Your task to perform on an android device: Open Yahoo.com Image 0: 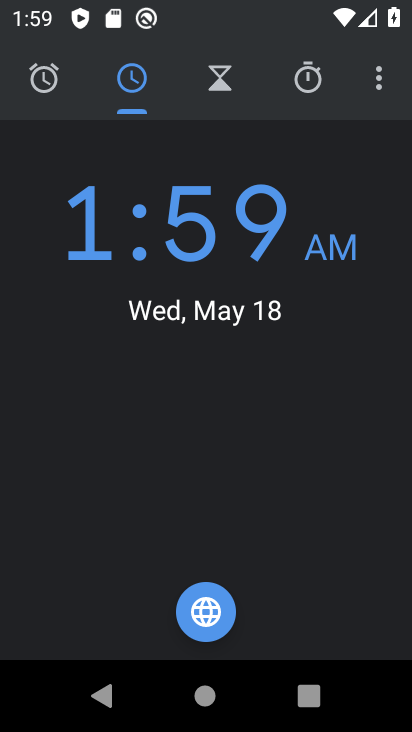
Step 0: press home button
Your task to perform on an android device: Open Yahoo.com Image 1: 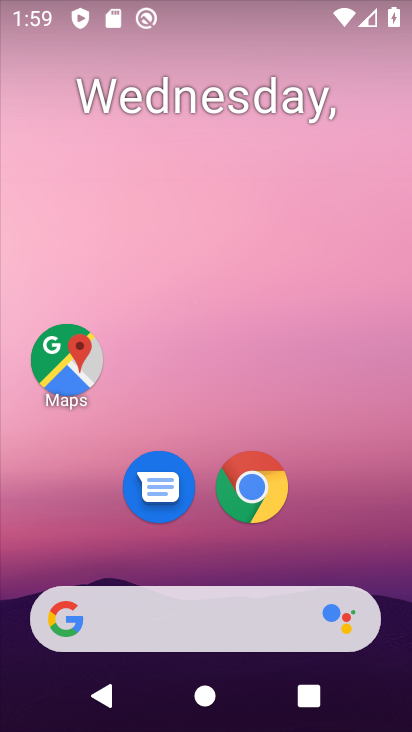
Step 1: click (251, 492)
Your task to perform on an android device: Open Yahoo.com Image 2: 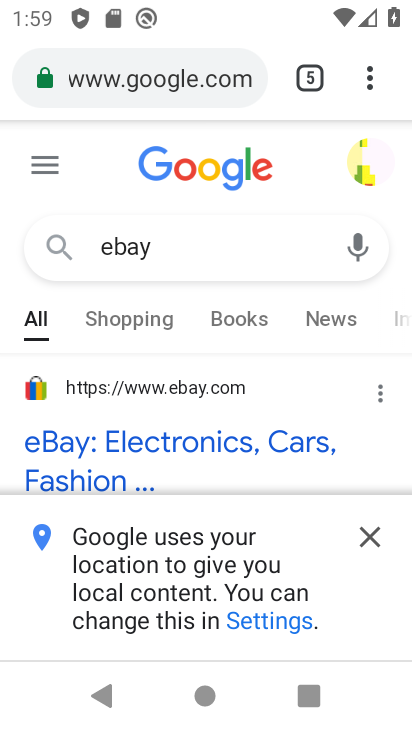
Step 2: click (374, 81)
Your task to perform on an android device: Open Yahoo.com Image 3: 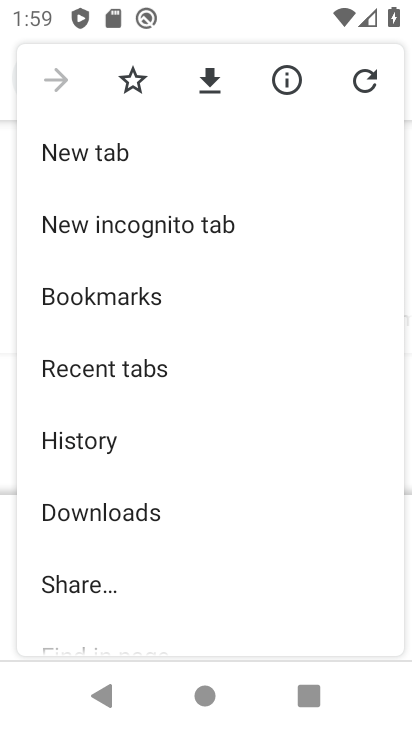
Step 3: click (96, 158)
Your task to perform on an android device: Open Yahoo.com Image 4: 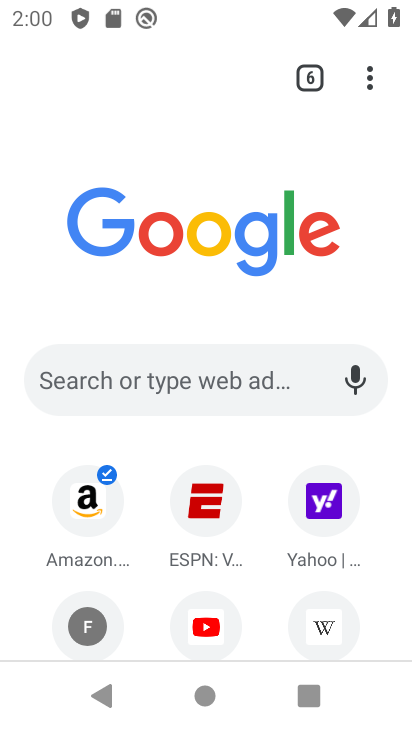
Step 4: drag from (138, 593) to (118, 332)
Your task to perform on an android device: Open Yahoo.com Image 5: 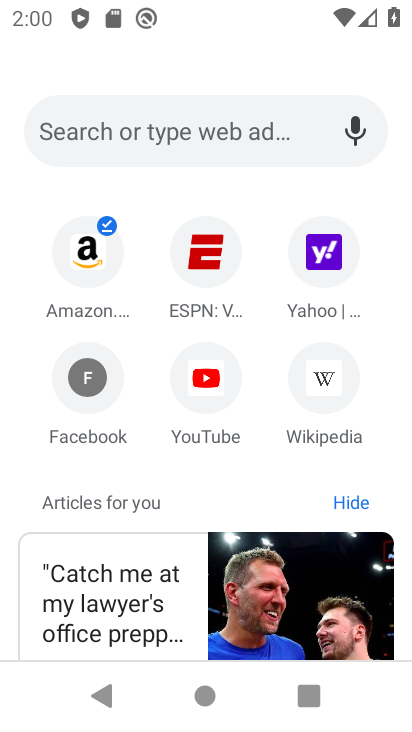
Step 5: click (317, 244)
Your task to perform on an android device: Open Yahoo.com Image 6: 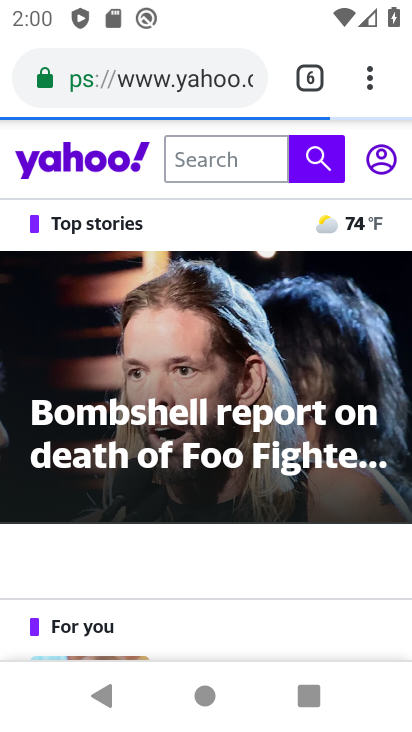
Step 6: task complete